Your task to perform on an android device: Empty the shopping cart on bestbuy. Search for "razer huntsman" on bestbuy, select the first entry, and add it to the cart. Image 0: 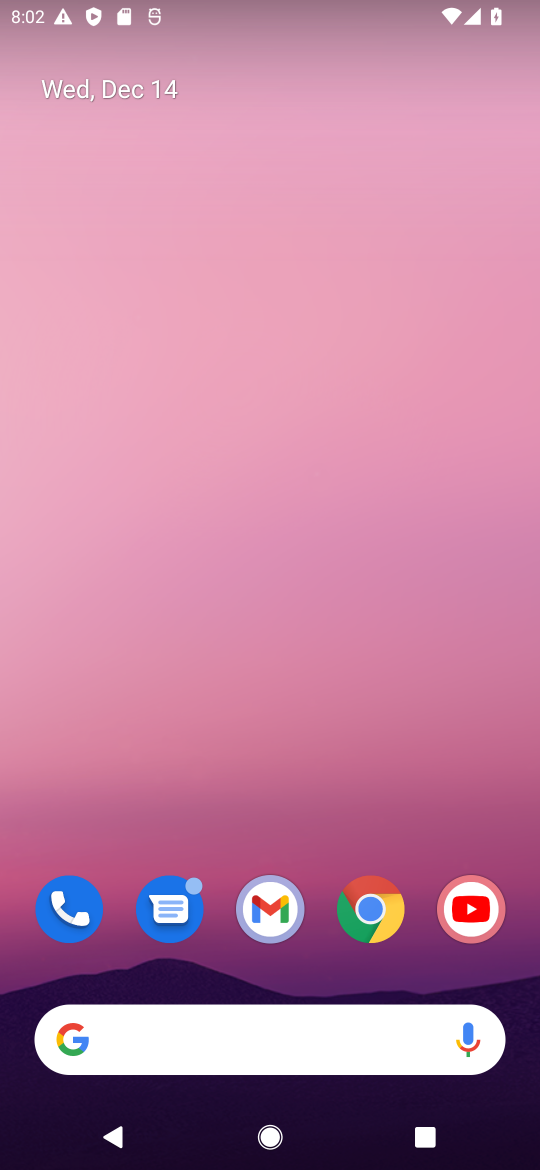
Step 0: click (384, 932)
Your task to perform on an android device: Empty the shopping cart on bestbuy. Search for "razer huntsman" on bestbuy, select the first entry, and add it to the cart. Image 1: 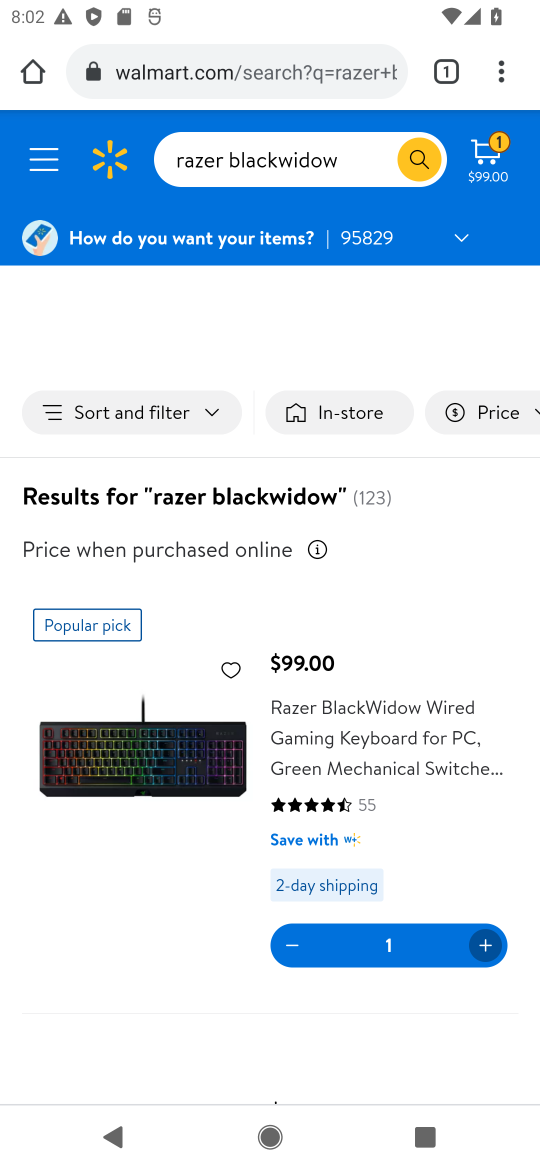
Step 1: click (265, 70)
Your task to perform on an android device: Empty the shopping cart on bestbuy. Search for "razer huntsman" on bestbuy, select the first entry, and add it to the cart. Image 2: 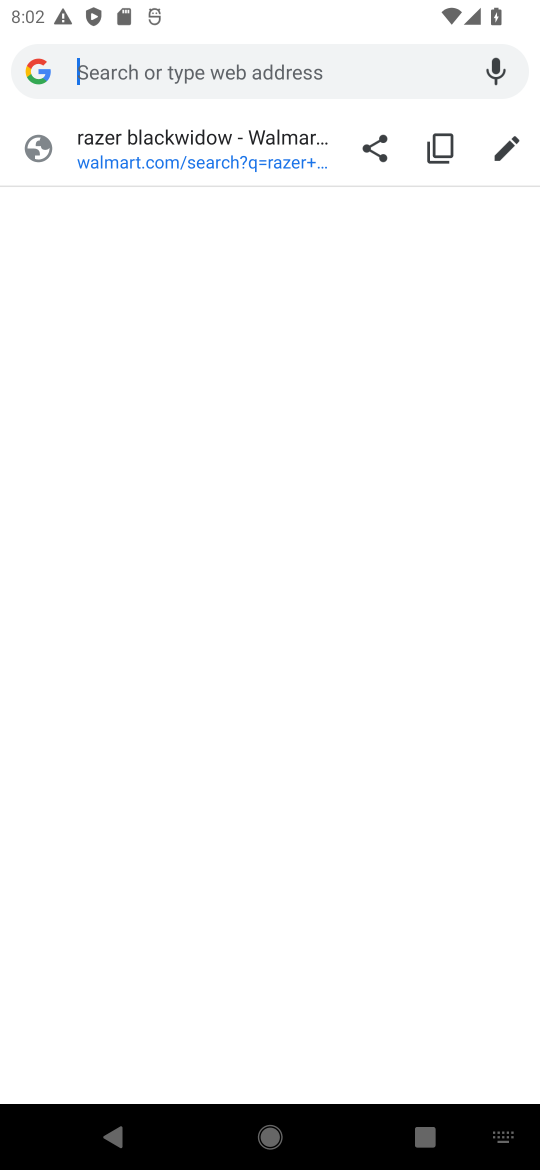
Step 2: type "bestbuy"
Your task to perform on an android device: Empty the shopping cart on bestbuy. Search for "razer huntsman" on bestbuy, select the first entry, and add it to the cart. Image 3: 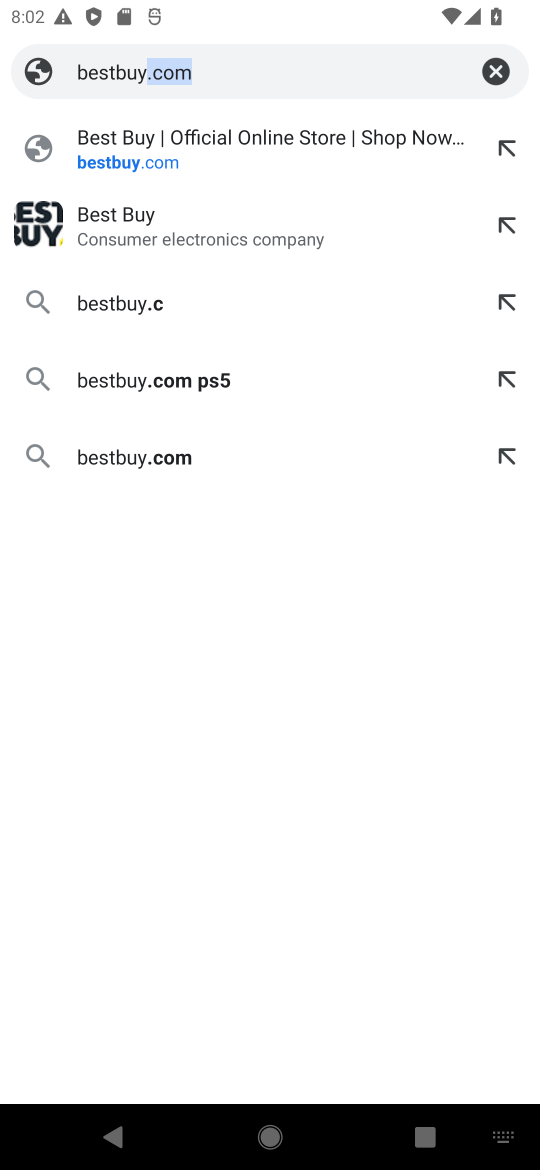
Step 3: click (191, 151)
Your task to perform on an android device: Empty the shopping cart on bestbuy. Search for "razer huntsman" on bestbuy, select the first entry, and add it to the cart. Image 4: 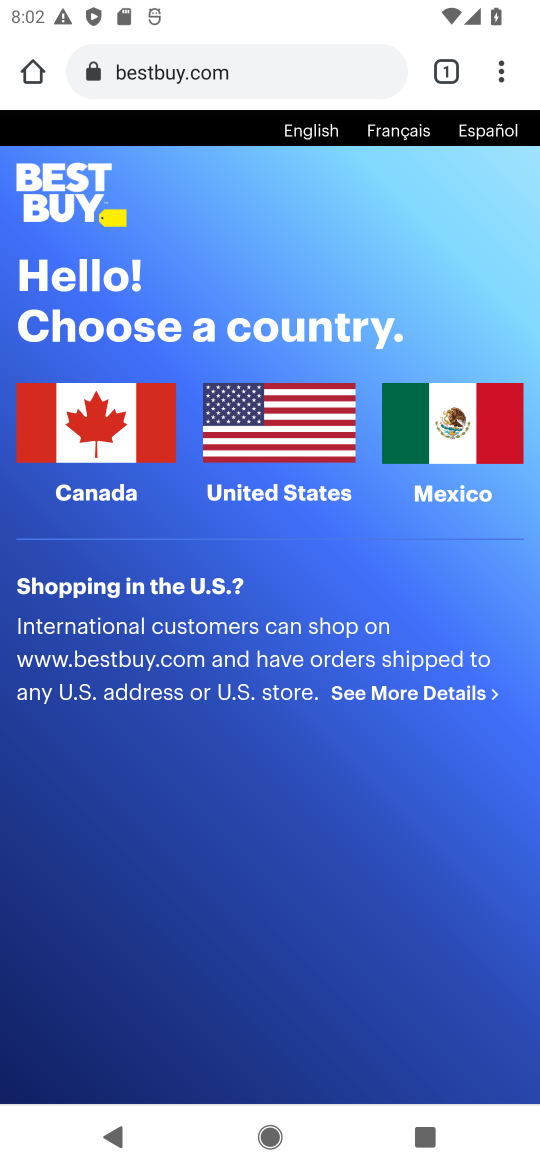
Step 4: click (274, 433)
Your task to perform on an android device: Empty the shopping cart on bestbuy. Search for "razer huntsman" on bestbuy, select the first entry, and add it to the cart. Image 5: 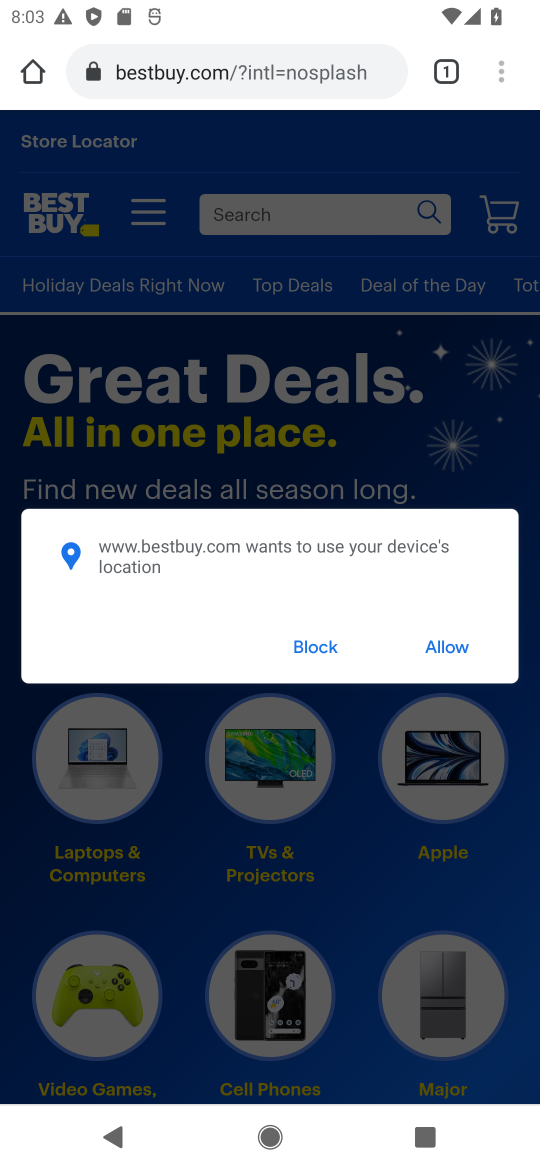
Step 5: click (449, 641)
Your task to perform on an android device: Empty the shopping cart on bestbuy. Search for "razer huntsman" on bestbuy, select the first entry, and add it to the cart. Image 6: 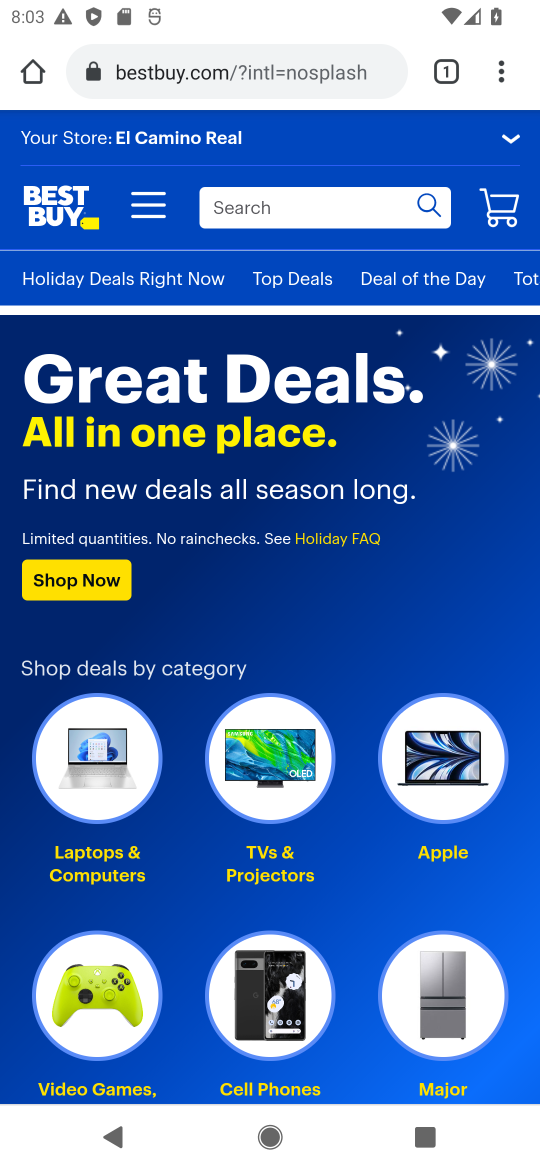
Step 6: click (490, 223)
Your task to perform on an android device: Empty the shopping cart on bestbuy. Search for "razer huntsman" on bestbuy, select the first entry, and add it to the cart. Image 7: 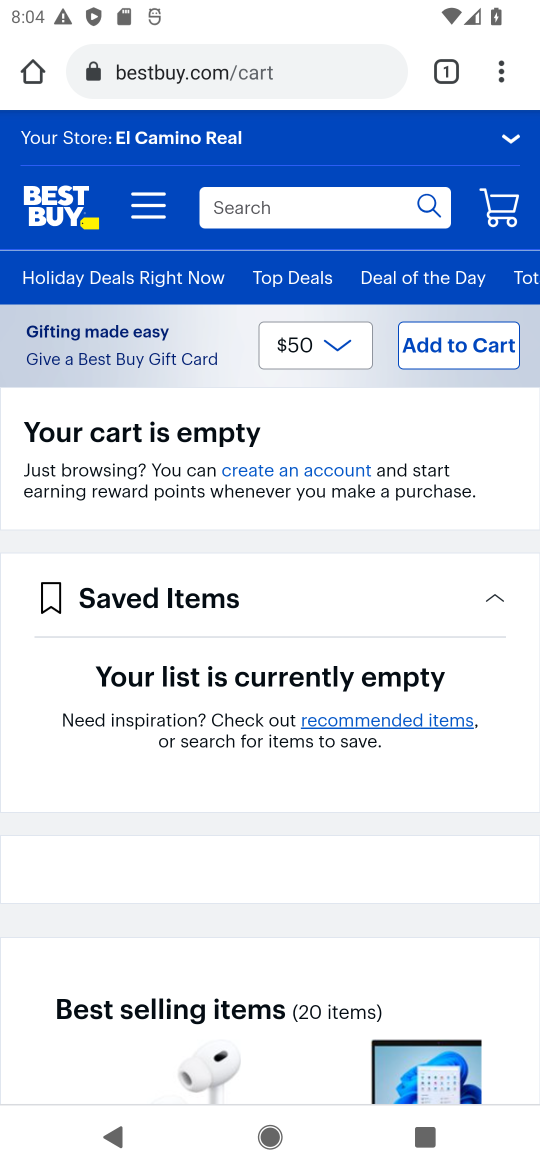
Step 7: click (348, 212)
Your task to perform on an android device: Empty the shopping cart on bestbuy. Search for "razer huntsman" on bestbuy, select the first entry, and add it to the cart. Image 8: 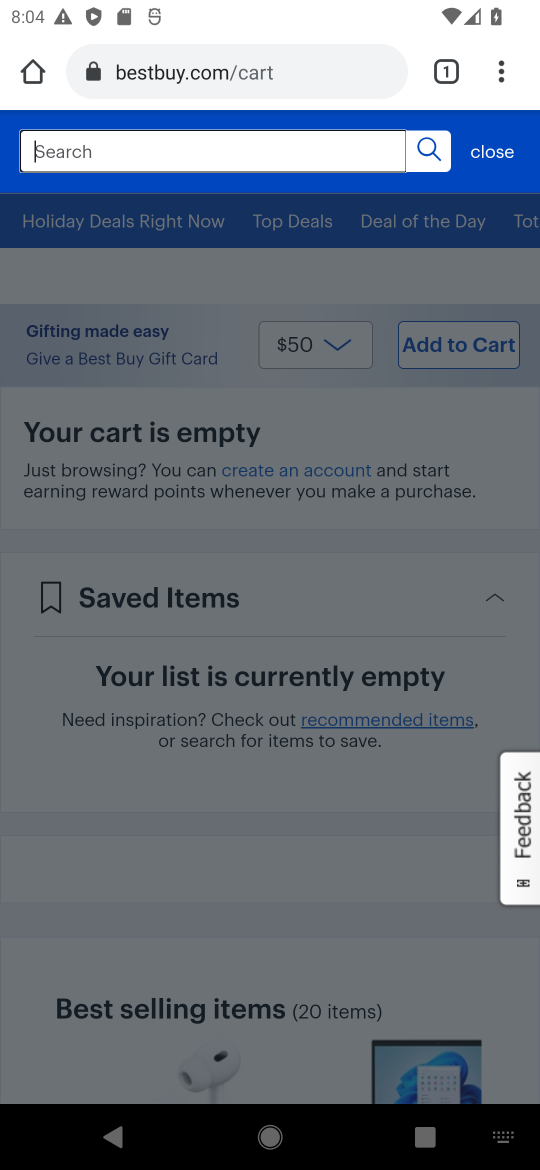
Step 8: type "razer huntsman"
Your task to perform on an android device: Empty the shopping cart on bestbuy. Search for "razer huntsman" on bestbuy, select the first entry, and add it to the cart. Image 9: 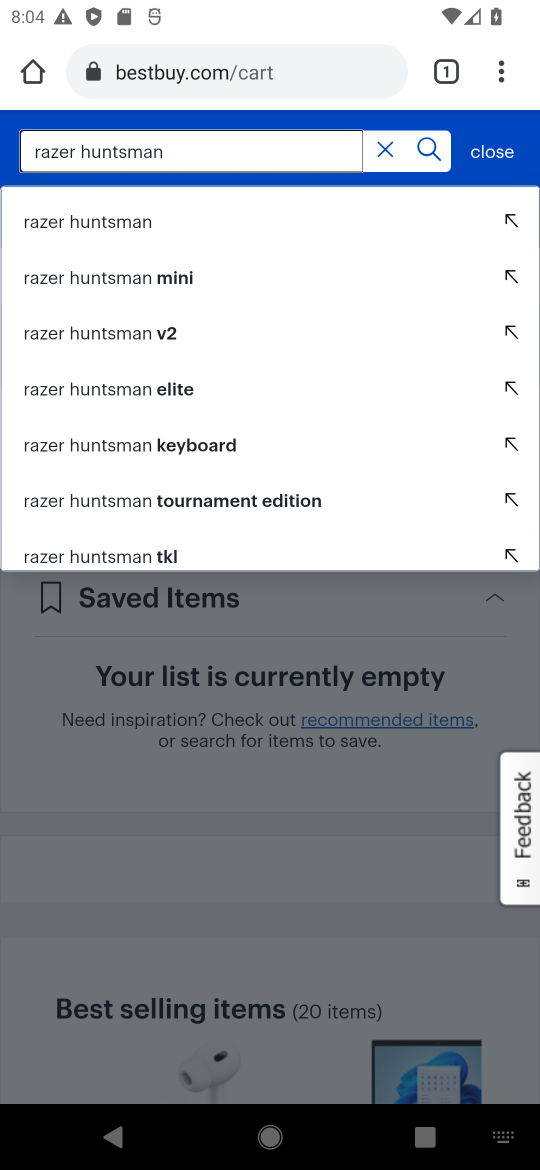
Step 9: press enter
Your task to perform on an android device: Empty the shopping cart on bestbuy. Search for "razer huntsman" on bestbuy, select the first entry, and add it to the cart. Image 10: 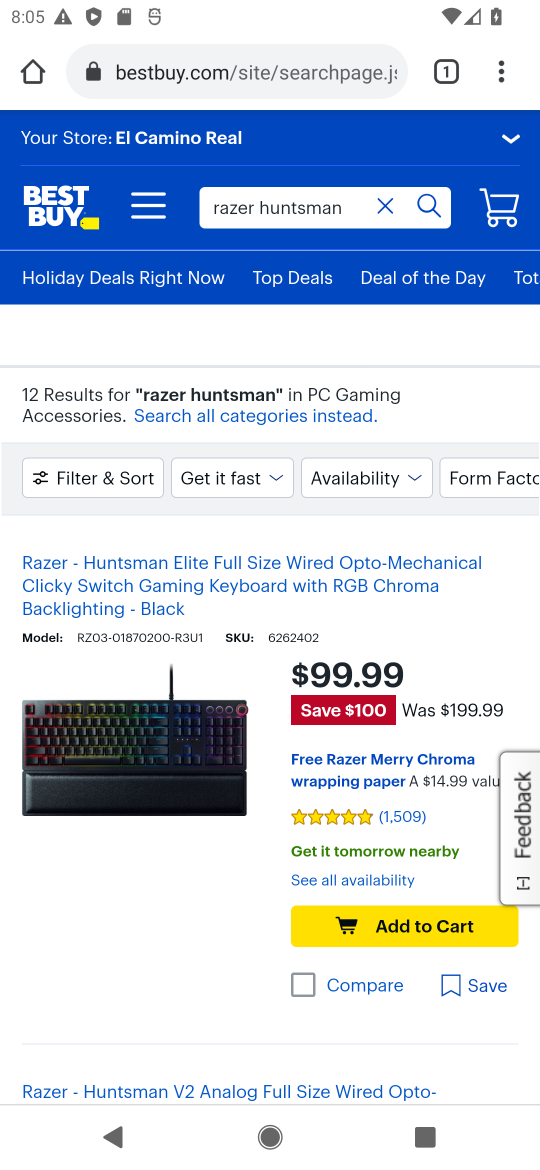
Step 10: click (214, 594)
Your task to perform on an android device: Empty the shopping cart on bestbuy. Search for "razer huntsman" on bestbuy, select the first entry, and add it to the cart. Image 11: 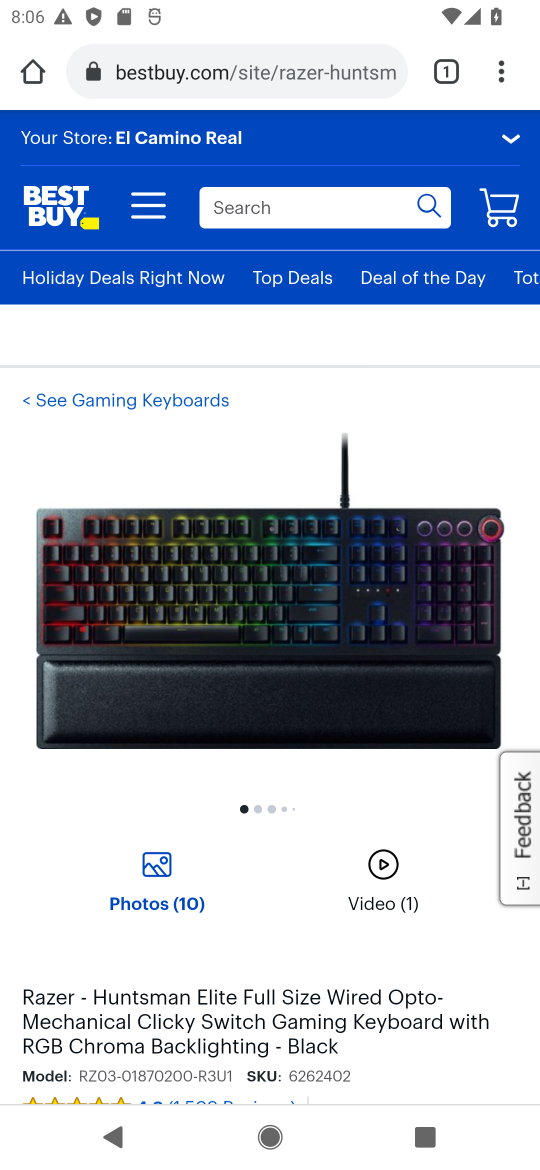
Step 11: drag from (288, 1014) to (242, 481)
Your task to perform on an android device: Empty the shopping cart on bestbuy. Search for "razer huntsman" on bestbuy, select the first entry, and add it to the cart. Image 12: 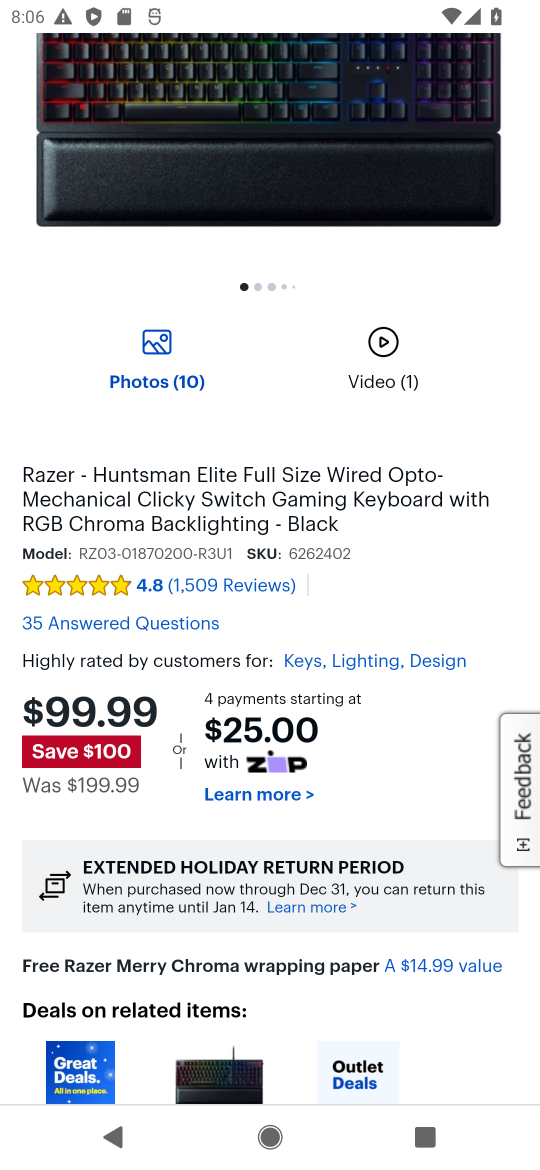
Step 12: drag from (257, 652) to (282, 15)
Your task to perform on an android device: Empty the shopping cart on bestbuy. Search for "razer huntsman" on bestbuy, select the first entry, and add it to the cart. Image 13: 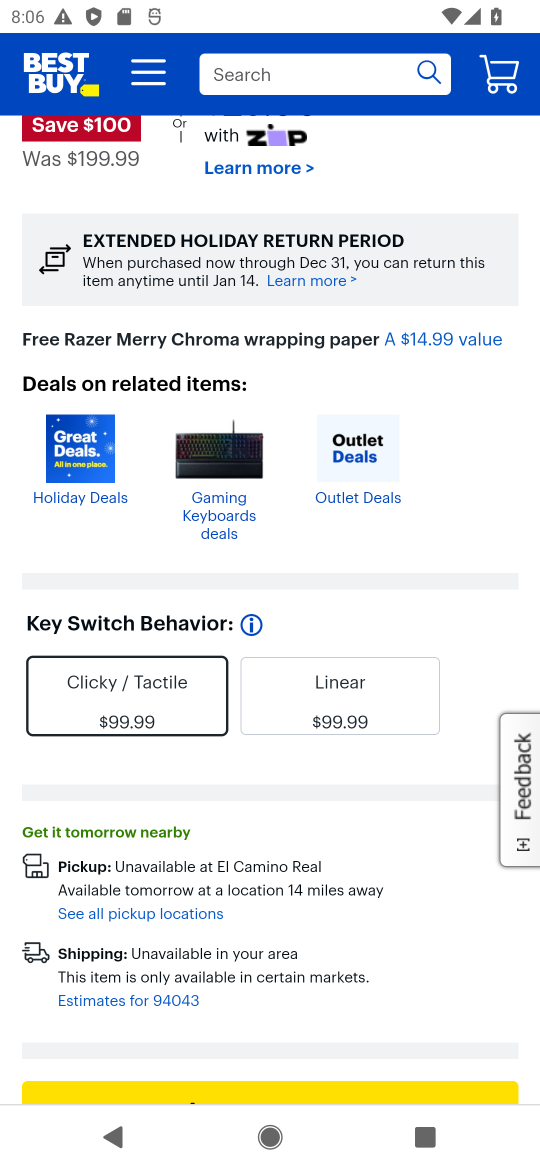
Step 13: drag from (322, 1035) to (312, 631)
Your task to perform on an android device: Empty the shopping cart on bestbuy. Search for "razer huntsman" on bestbuy, select the first entry, and add it to the cart. Image 14: 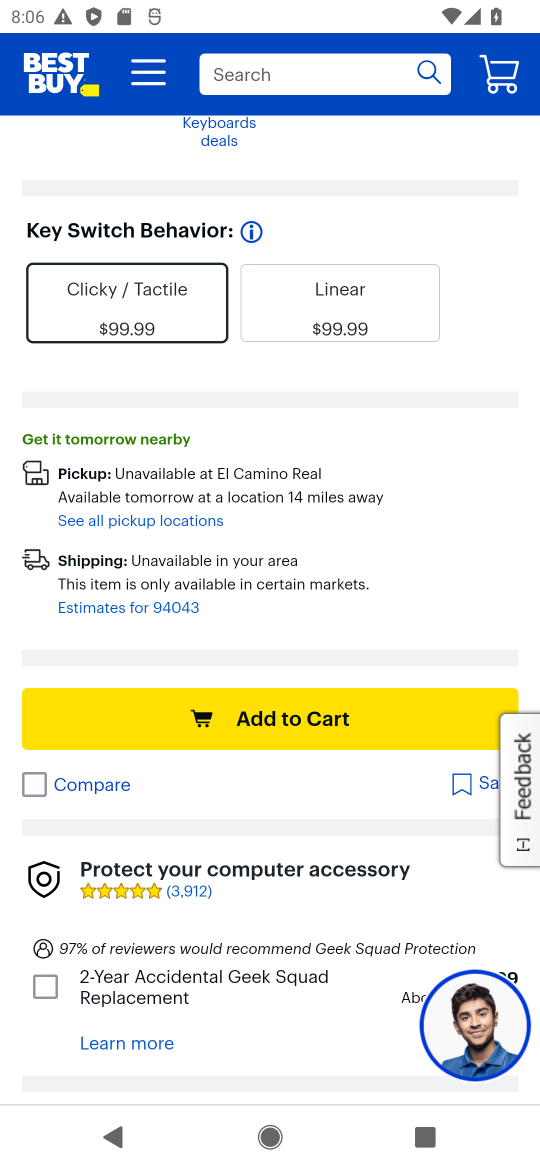
Step 14: click (289, 711)
Your task to perform on an android device: Empty the shopping cart on bestbuy. Search for "razer huntsman" on bestbuy, select the first entry, and add it to the cart. Image 15: 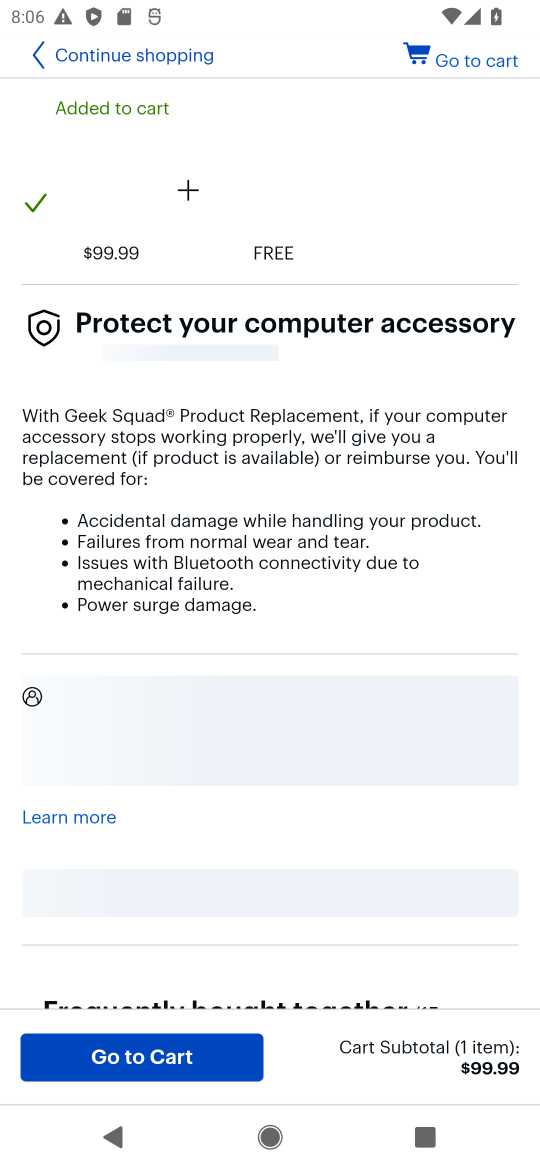
Step 15: click (124, 1070)
Your task to perform on an android device: Empty the shopping cart on bestbuy. Search for "razer huntsman" on bestbuy, select the first entry, and add it to the cart. Image 16: 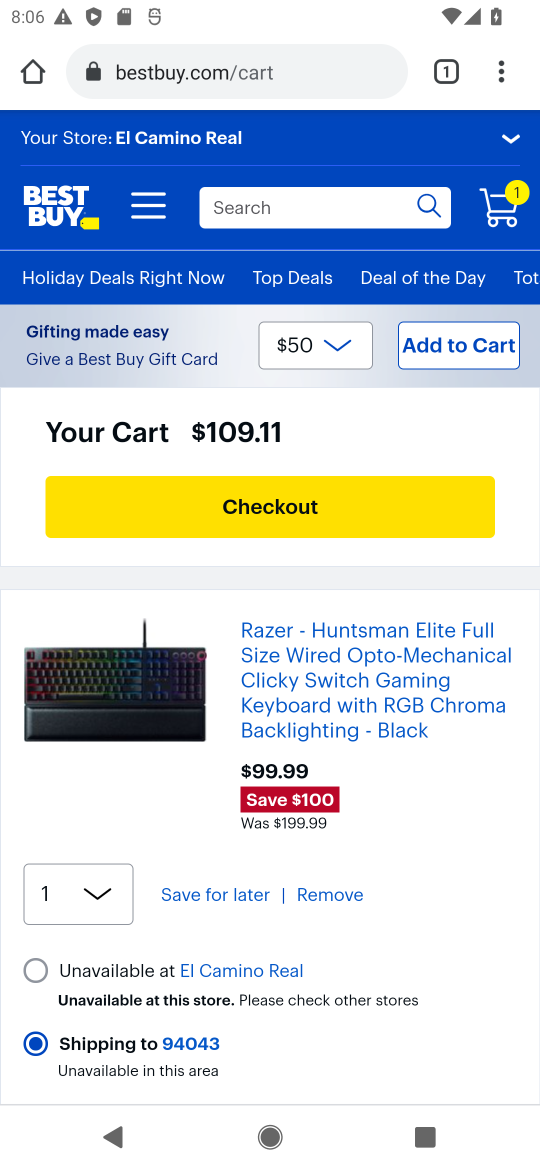
Step 16: task complete